Your task to perform on an android device: open wifi settings Image 0: 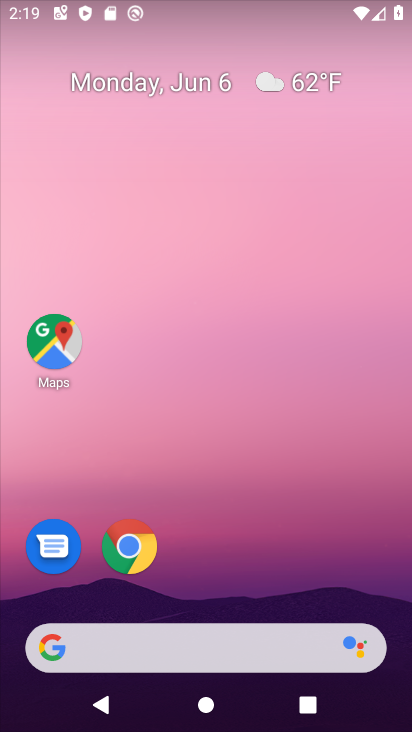
Step 0: drag from (297, 640) to (202, 240)
Your task to perform on an android device: open wifi settings Image 1: 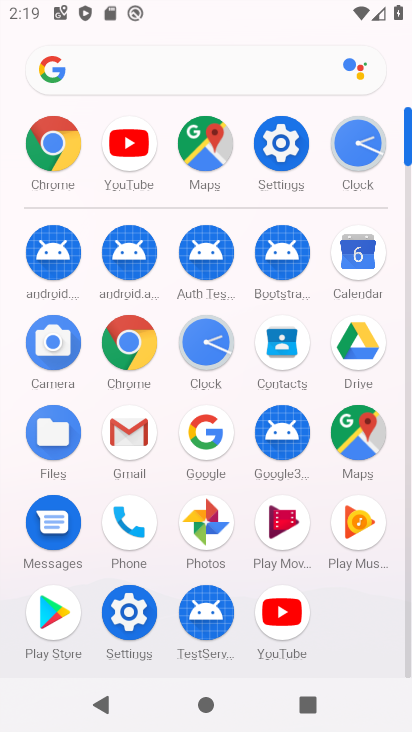
Step 1: click (267, 143)
Your task to perform on an android device: open wifi settings Image 2: 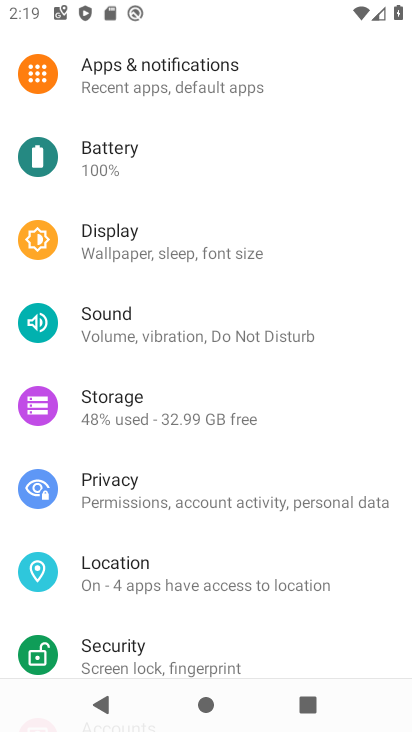
Step 2: drag from (189, 84) to (142, 530)
Your task to perform on an android device: open wifi settings Image 3: 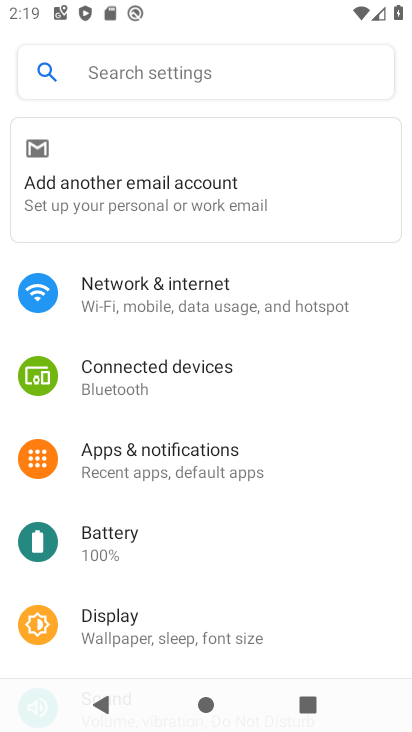
Step 3: click (139, 287)
Your task to perform on an android device: open wifi settings Image 4: 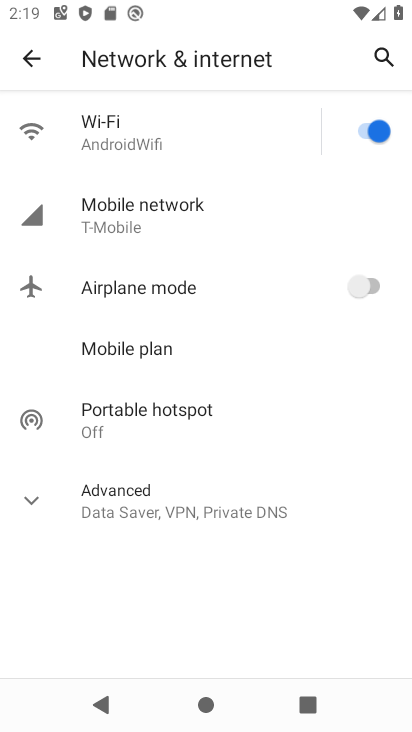
Step 4: click (152, 142)
Your task to perform on an android device: open wifi settings Image 5: 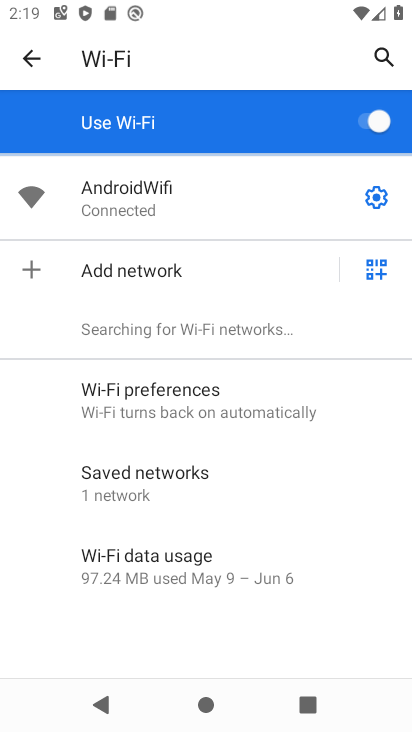
Step 5: click (374, 196)
Your task to perform on an android device: open wifi settings Image 6: 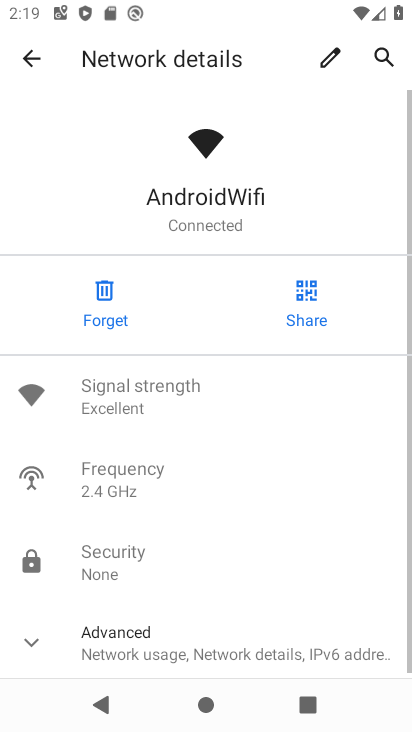
Step 6: task complete